Your task to perform on an android device: Open location settings Image 0: 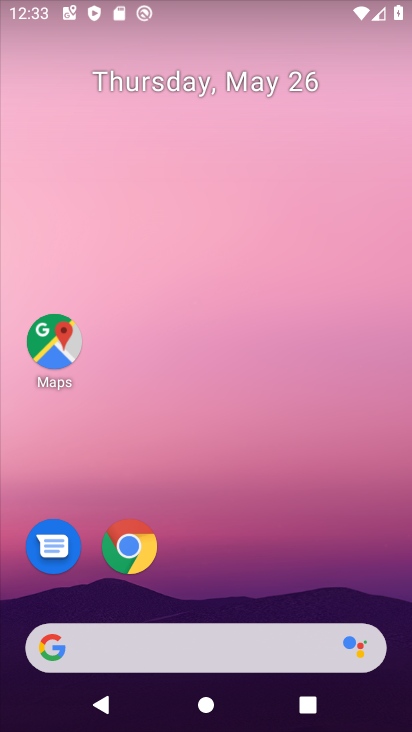
Step 0: press home button
Your task to perform on an android device: Open location settings Image 1: 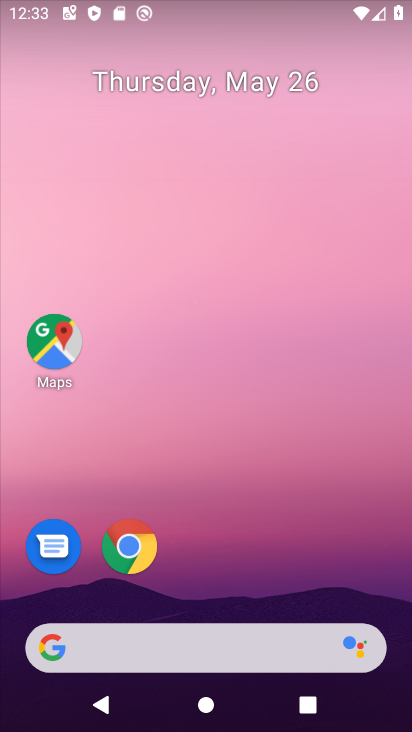
Step 1: drag from (320, 572) to (255, 11)
Your task to perform on an android device: Open location settings Image 2: 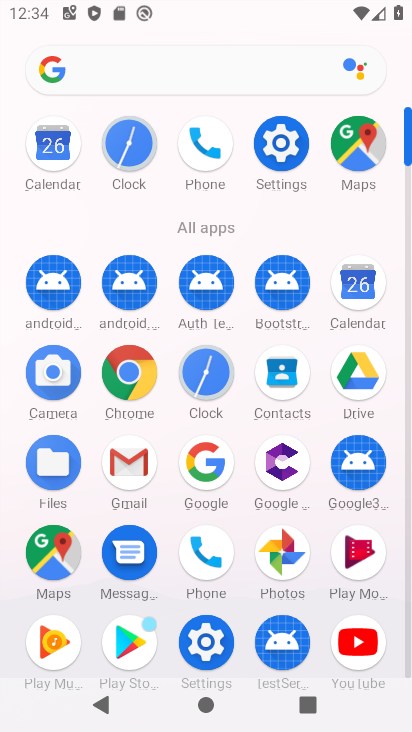
Step 2: click (208, 626)
Your task to perform on an android device: Open location settings Image 3: 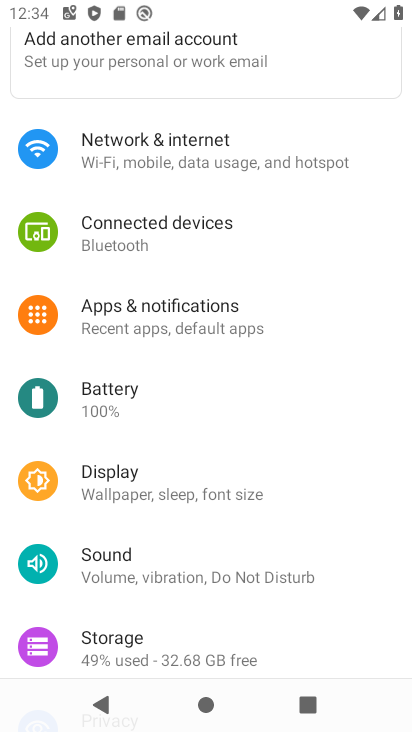
Step 3: drag from (174, 616) to (173, 134)
Your task to perform on an android device: Open location settings Image 4: 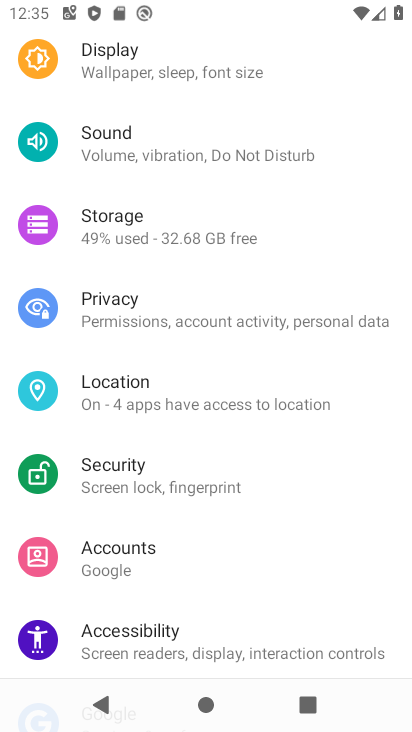
Step 4: click (243, 382)
Your task to perform on an android device: Open location settings Image 5: 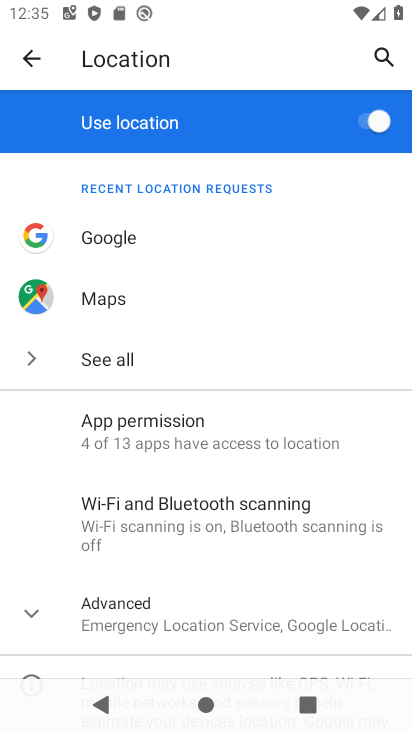
Step 5: task complete